Your task to perform on an android device: find snoozed emails in the gmail app Image 0: 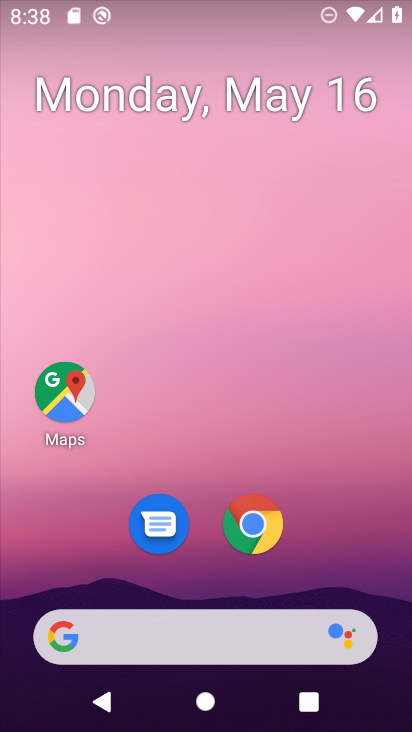
Step 0: drag from (312, 555) to (274, 66)
Your task to perform on an android device: find snoozed emails in the gmail app Image 1: 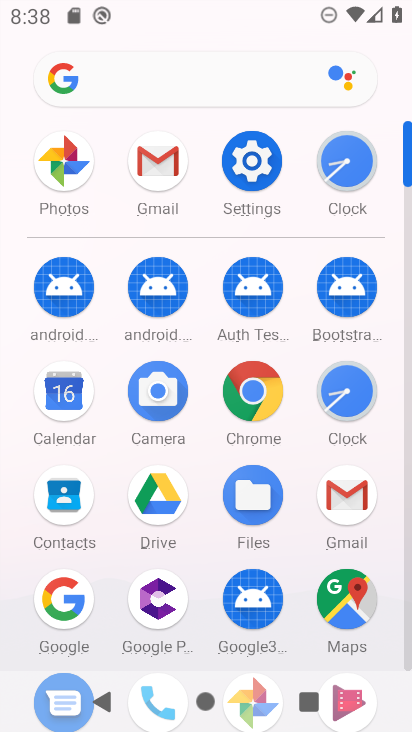
Step 1: click (172, 167)
Your task to perform on an android device: find snoozed emails in the gmail app Image 2: 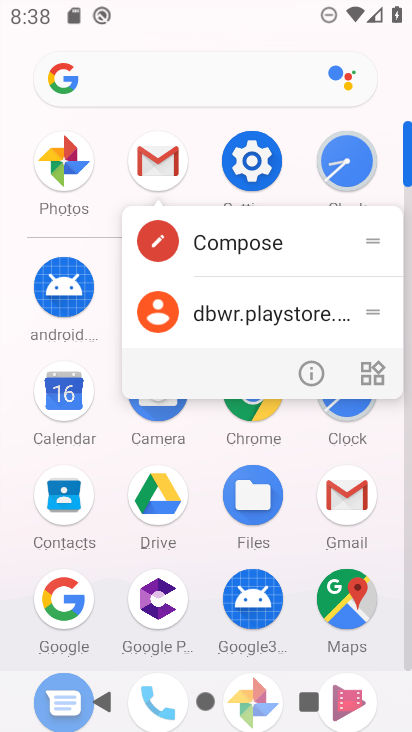
Step 2: click (160, 152)
Your task to perform on an android device: find snoozed emails in the gmail app Image 3: 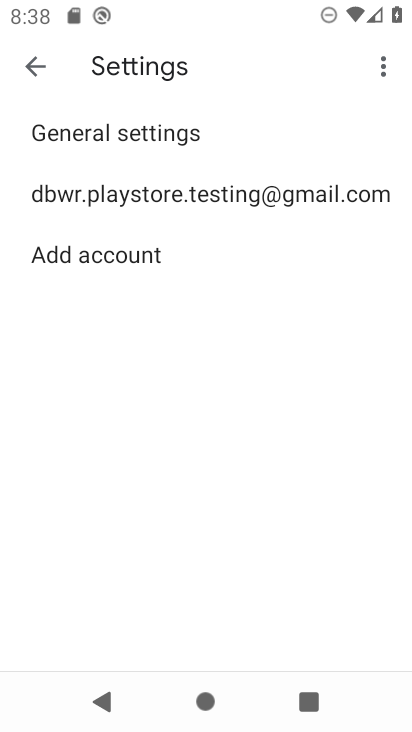
Step 3: click (38, 66)
Your task to perform on an android device: find snoozed emails in the gmail app Image 4: 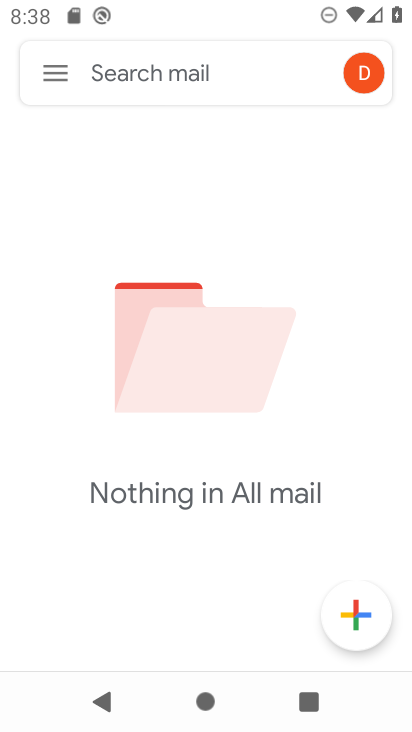
Step 4: click (49, 61)
Your task to perform on an android device: find snoozed emails in the gmail app Image 5: 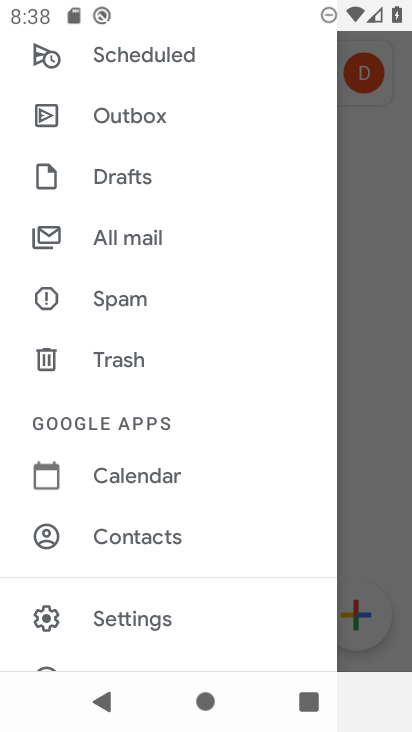
Step 5: drag from (194, 155) to (182, 668)
Your task to perform on an android device: find snoozed emails in the gmail app Image 6: 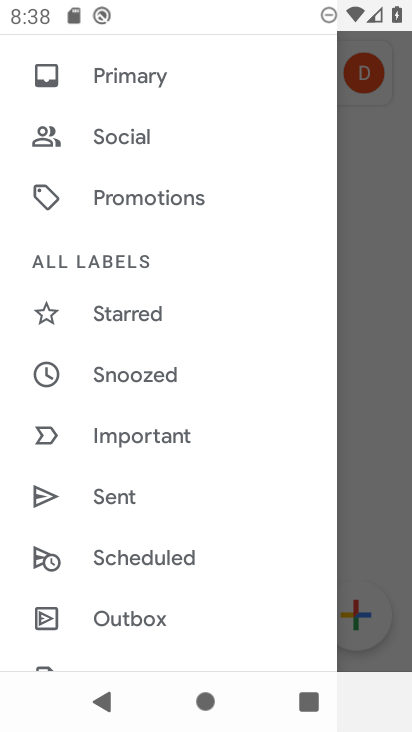
Step 6: click (177, 364)
Your task to perform on an android device: find snoozed emails in the gmail app Image 7: 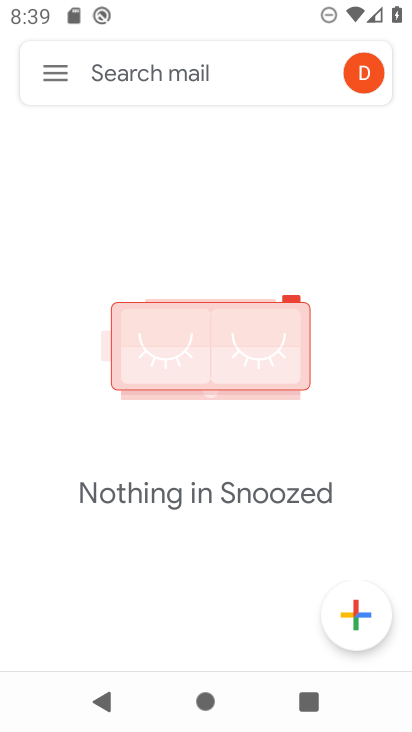
Step 7: task complete